Your task to perform on an android device: delete the emails in spam in the gmail app Image 0: 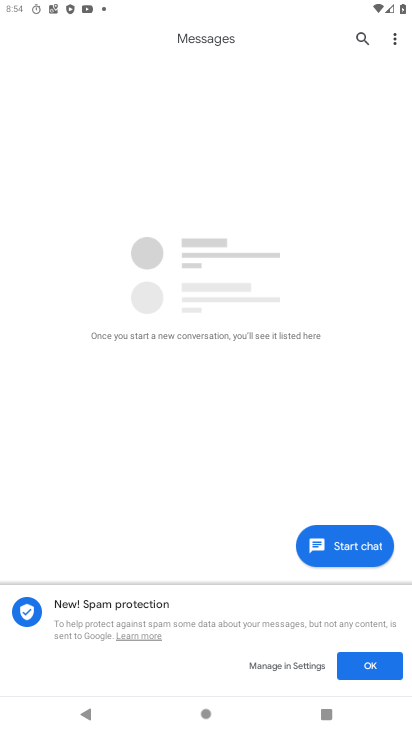
Step 0: press home button
Your task to perform on an android device: delete the emails in spam in the gmail app Image 1: 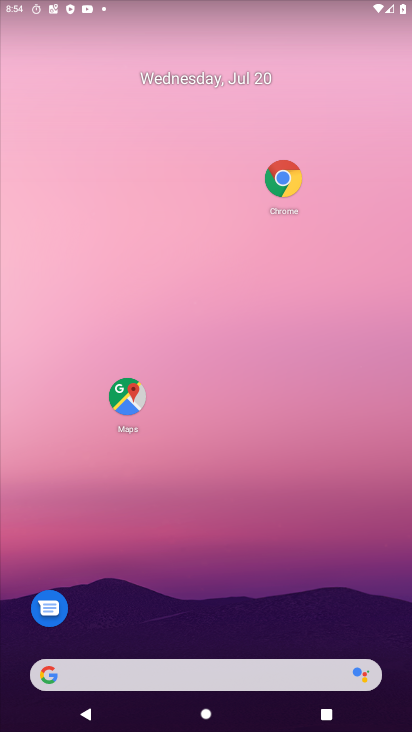
Step 1: drag from (264, 588) to (169, 43)
Your task to perform on an android device: delete the emails in spam in the gmail app Image 2: 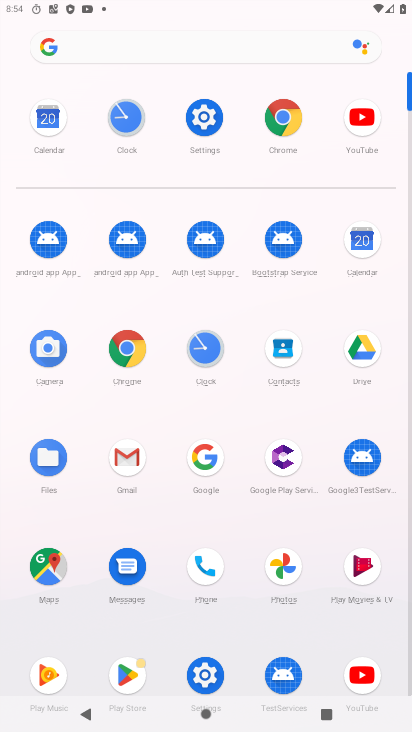
Step 2: click (140, 468)
Your task to perform on an android device: delete the emails in spam in the gmail app Image 3: 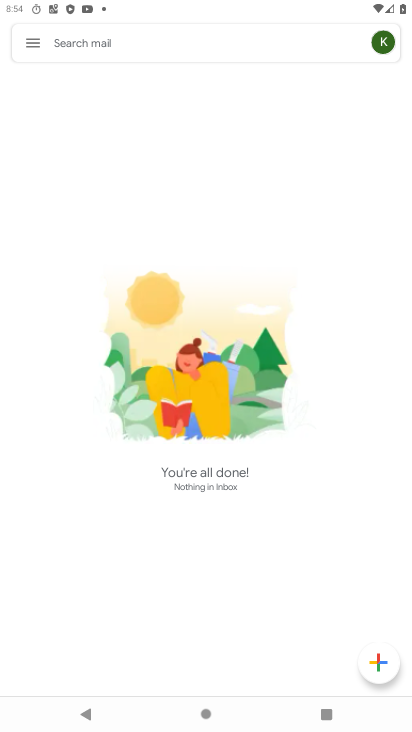
Step 3: click (32, 43)
Your task to perform on an android device: delete the emails in spam in the gmail app Image 4: 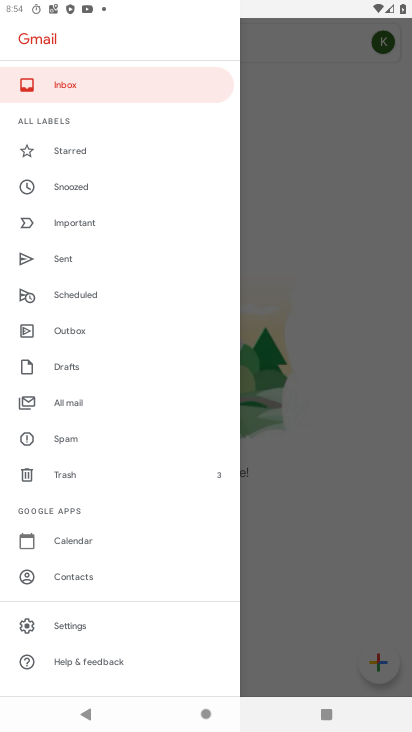
Step 4: click (82, 442)
Your task to perform on an android device: delete the emails in spam in the gmail app Image 5: 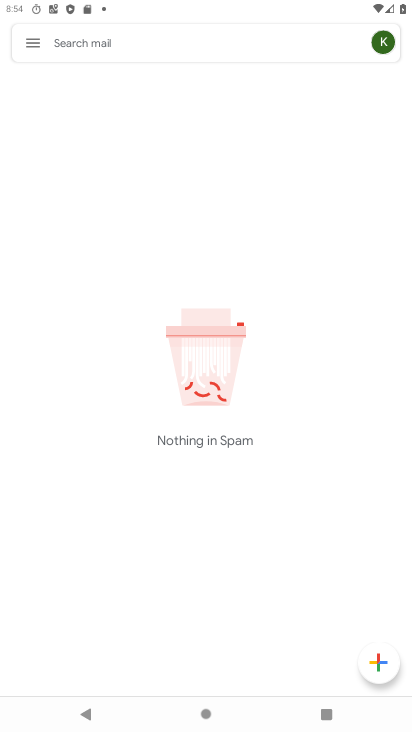
Step 5: task complete